Your task to perform on an android device: uninstall "Adobe Express: Graphic Design" Image 0: 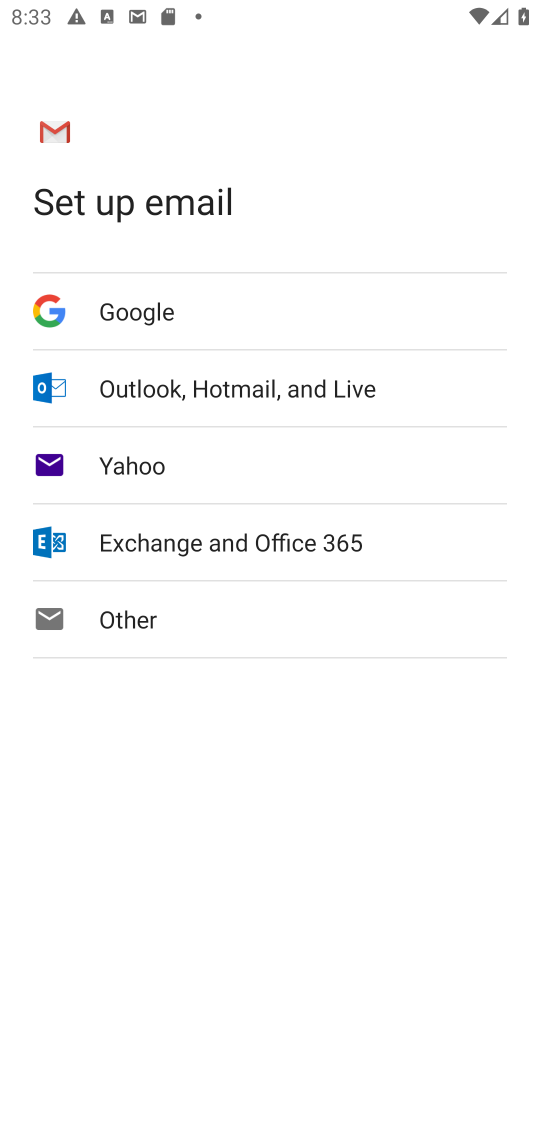
Step 0: press home button
Your task to perform on an android device: uninstall "Adobe Express: Graphic Design" Image 1: 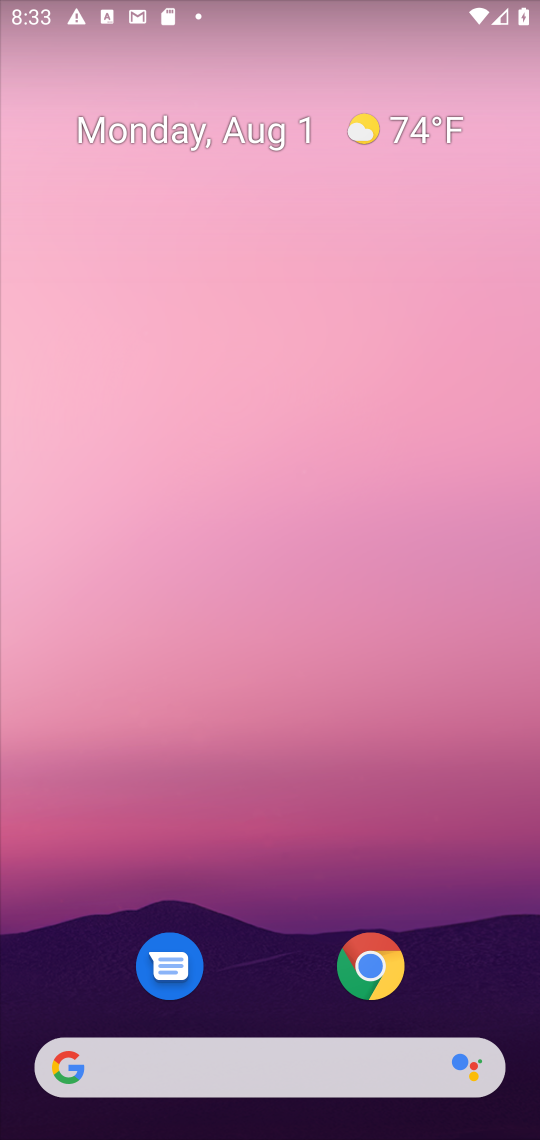
Step 1: drag from (523, 1084) to (487, 219)
Your task to perform on an android device: uninstall "Adobe Express: Graphic Design" Image 2: 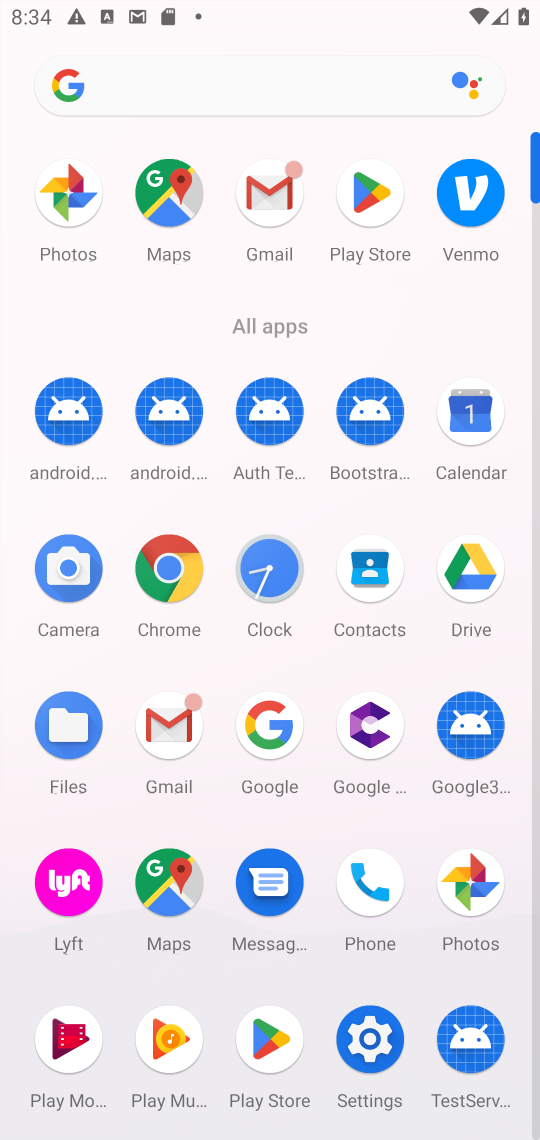
Step 2: click (371, 207)
Your task to perform on an android device: uninstall "Adobe Express: Graphic Design" Image 3: 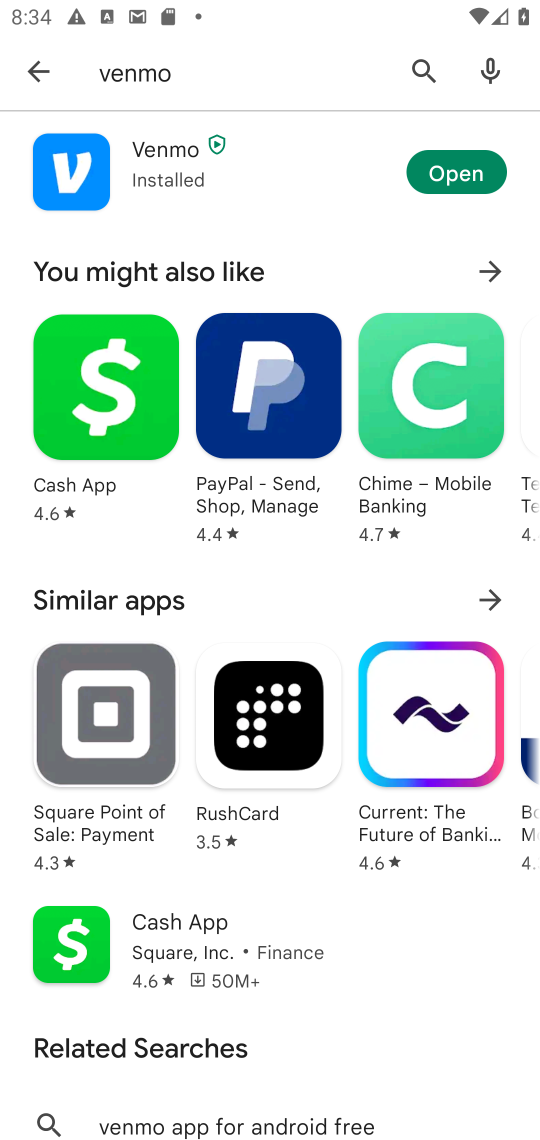
Step 3: click (427, 63)
Your task to perform on an android device: uninstall "Adobe Express: Graphic Design" Image 4: 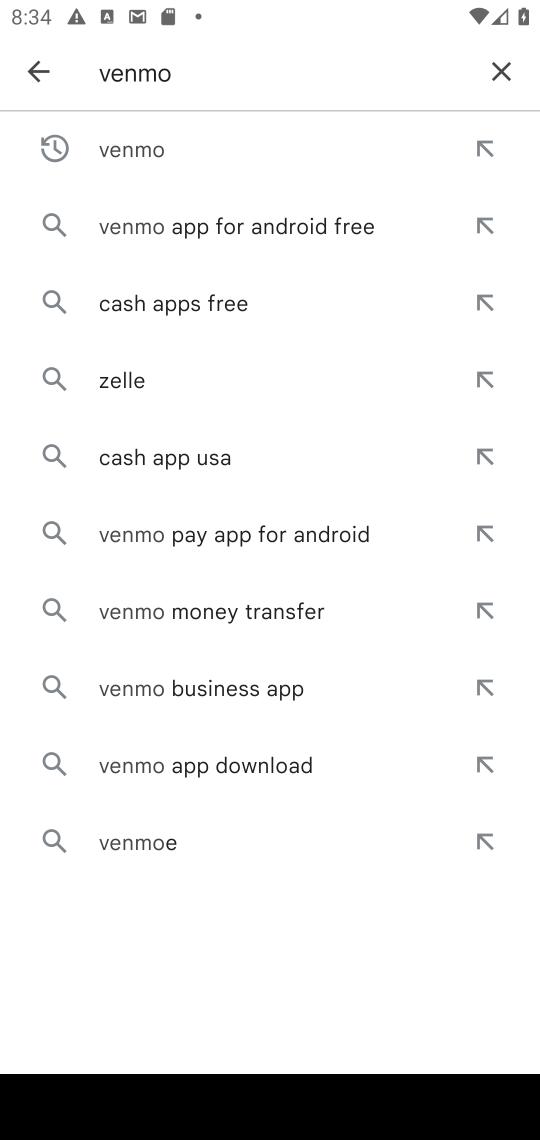
Step 4: click (487, 65)
Your task to perform on an android device: uninstall "Adobe Express: Graphic Design" Image 5: 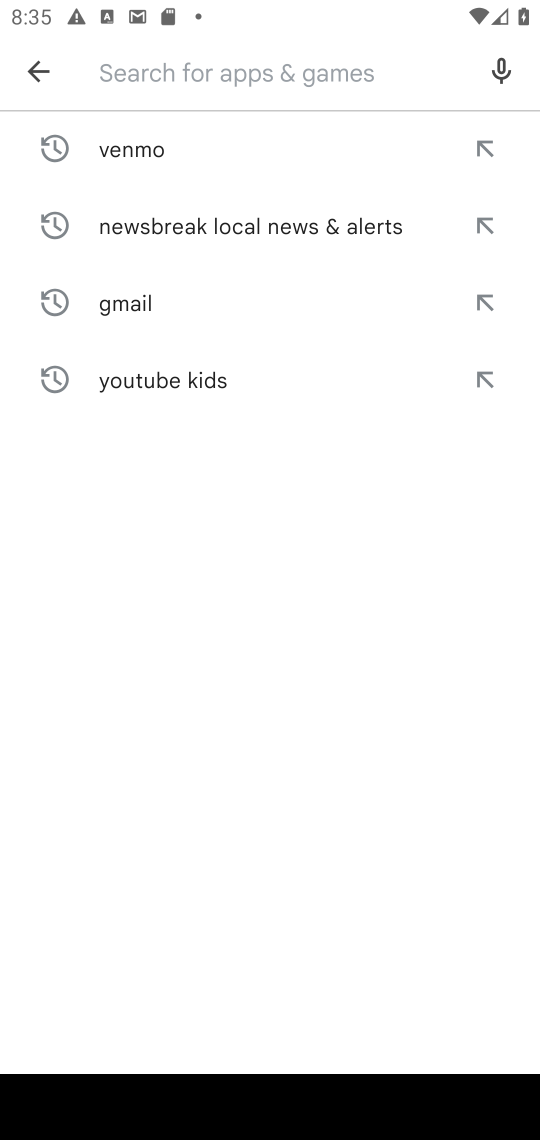
Step 5: type "Adobe Express: Graphic Design"
Your task to perform on an android device: uninstall "Adobe Express: Graphic Design" Image 6: 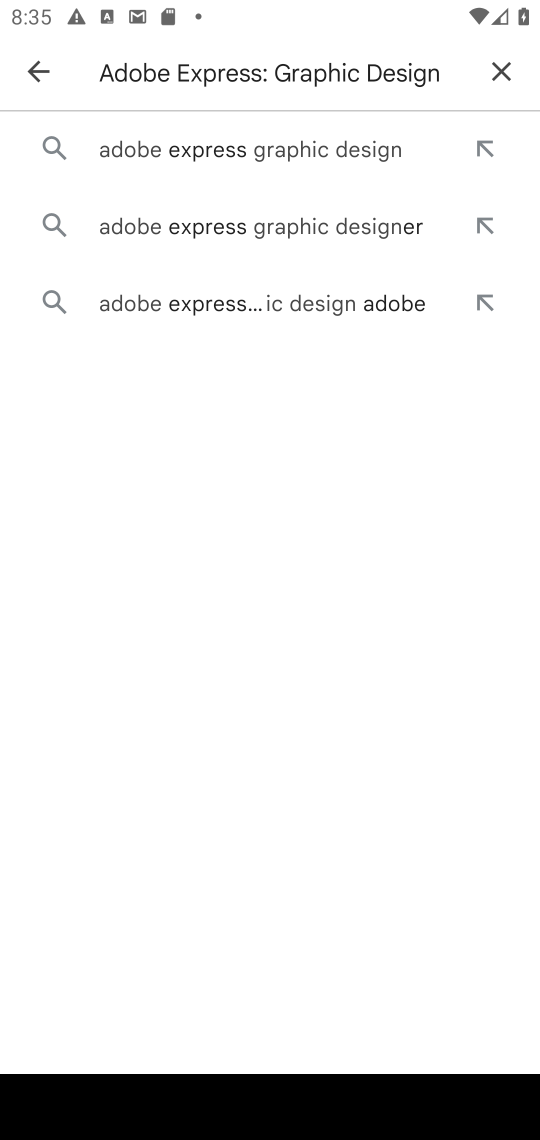
Step 6: click (259, 148)
Your task to perform on an android device: uninstall "Adobe Express: Graphic Design" Image 7: 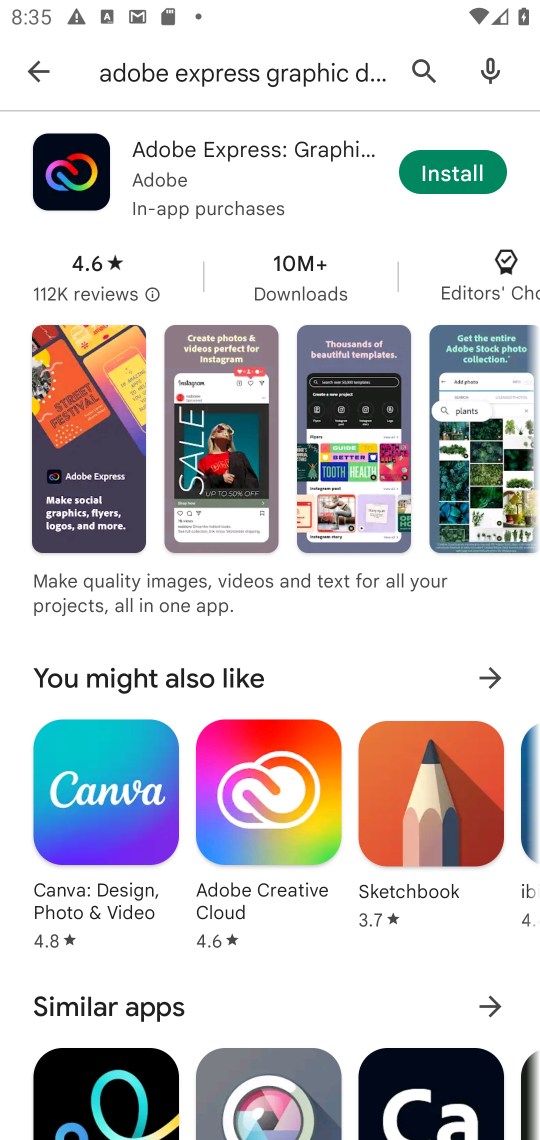
Step 7: click (453, 166)
Your task to perform on an android device: uninstall "Adobe Express: Graphic Design" Image 8: 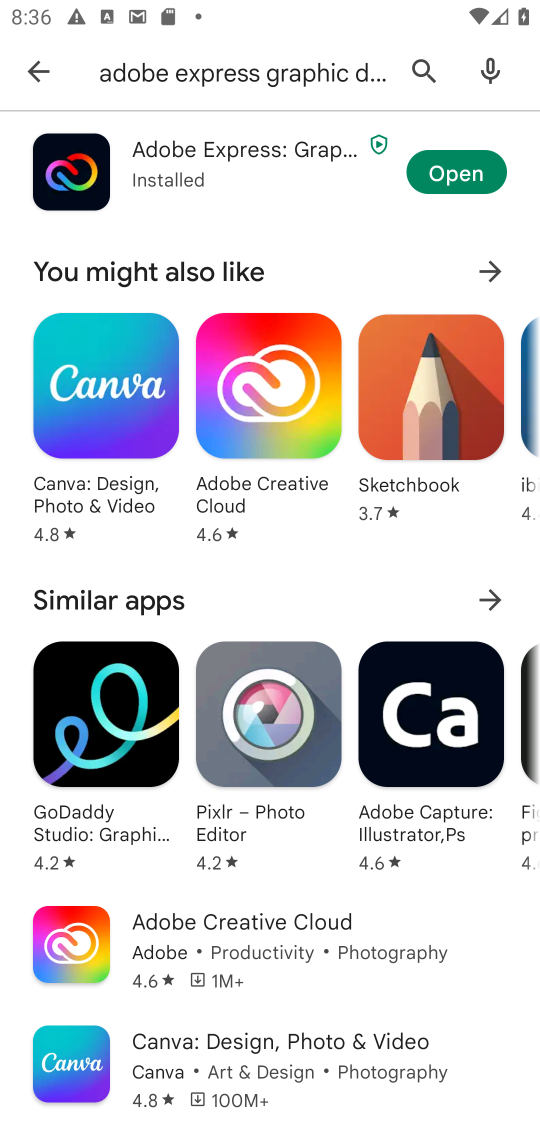
Step 8: task complete